Your task to perform on an android device: find which apps use the phone's location Image 0: 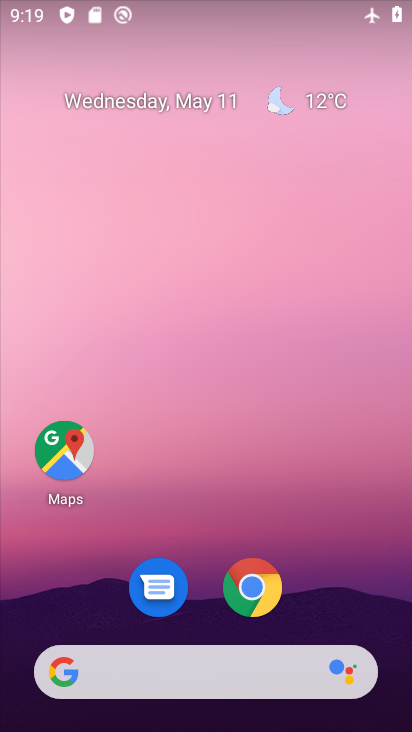
Step 0: drag from (366, 368) to (373, 0)
Your task to perform on an android device: find which apps use the phone's location Image 1: 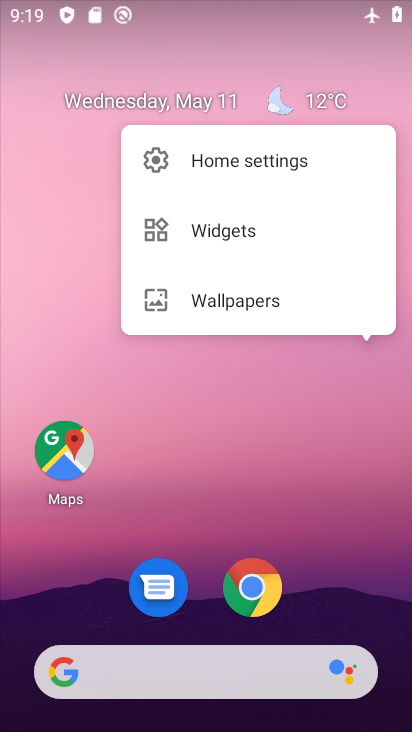
Step 1: drag from (363, 604) to (323, 13)
Your task to perform on an android device: find which apps use the phone's location Image 2: 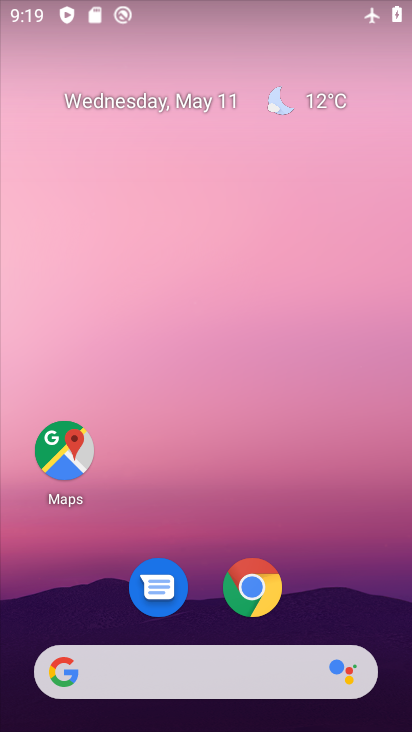
Step 2: drag from (321, 616) to (316, 28)
Your task to perform on an android device: find which apps use the phone's location Image 3: 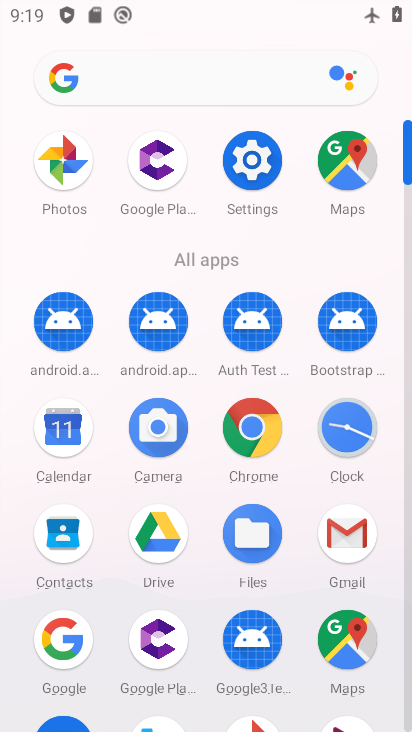
Step 3: click (249, 176)
Your task to perform on an android device: find which apps use the phone's location Image 4: 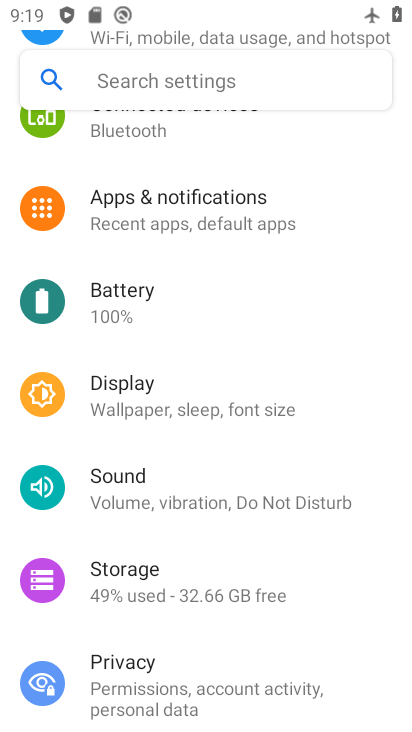
Step 4: drag from (310, 372) to (295, 248)
Your task to perform on an android device: find which apps use the phone's location Image 5: 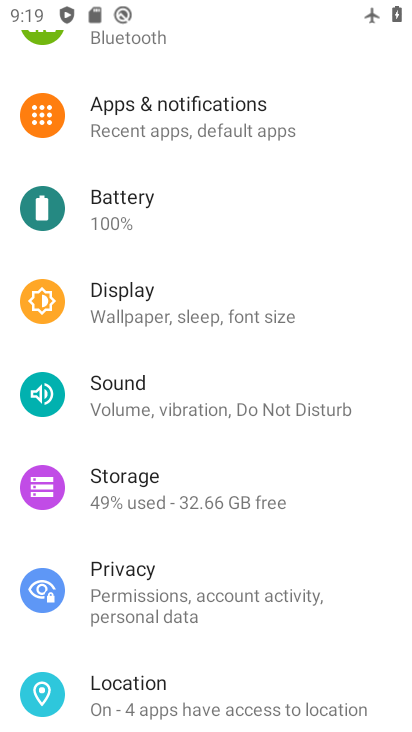
Step 5: drag from (329, 597) to (322, 294)
Your task to perform on an android device: find which apps use the phone's location Image 6: 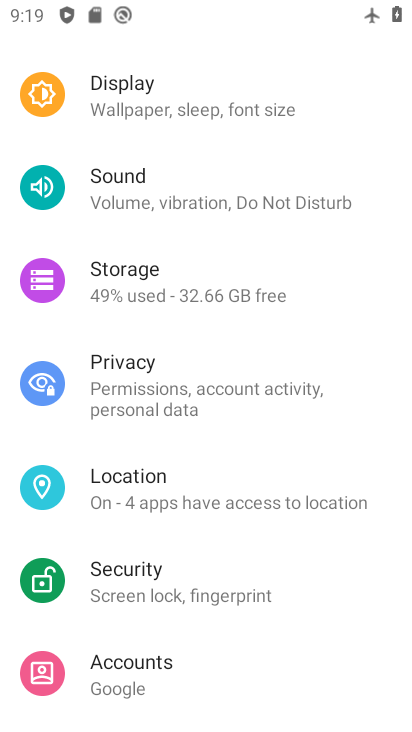
Step 6: click (132, 501)
Your task to perform on an android device: find which apps use the phone's location Image 7: 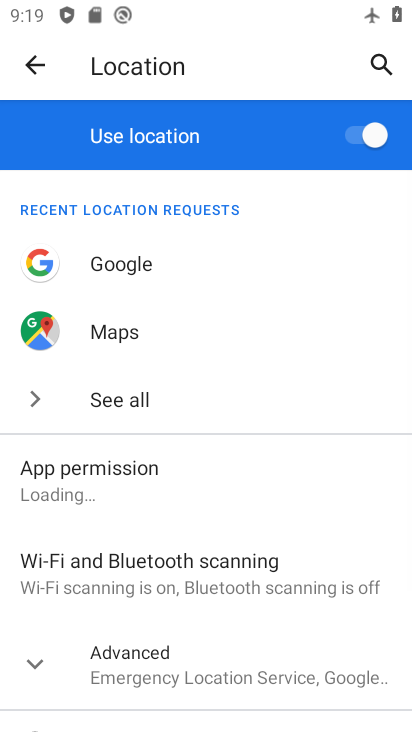
Step 7: click (58, 484)
Your task to perform on an android device: find which apps use the phone's location Image 8: 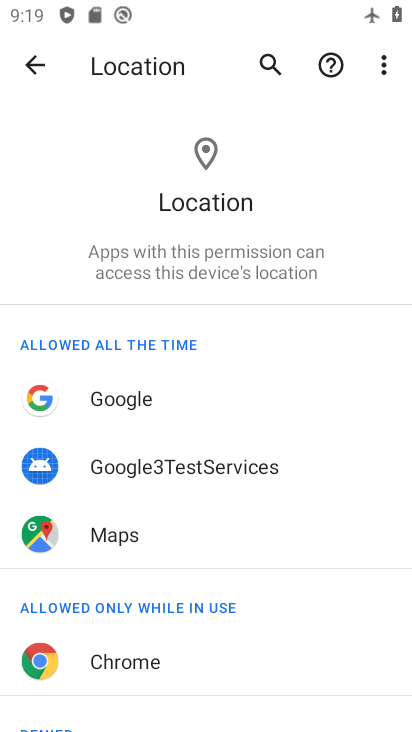
Step 8: task complete